Your task to perform on an android device: turn off sleep mode Image 0: 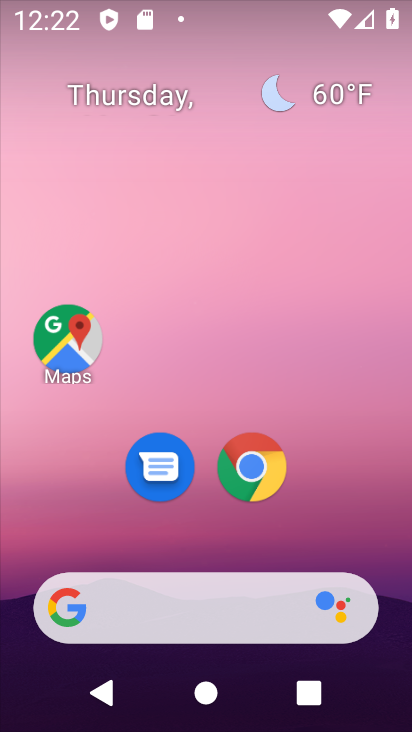
Step 0: drag from (224, 531) to (226, 25)
Your task to perform on an android device: turn off sleep mode Image 1: 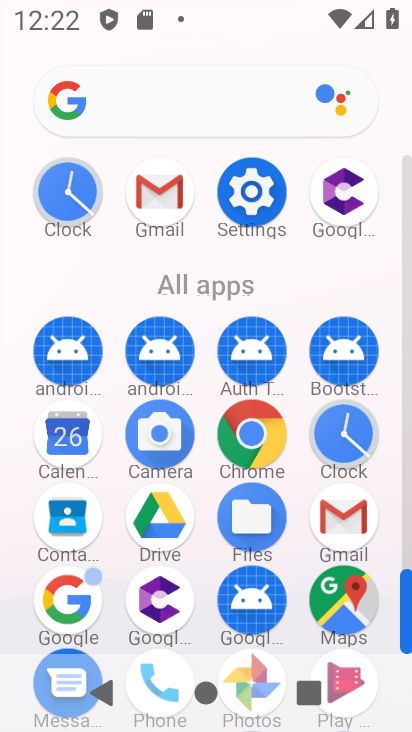
Step 1: click (270, 216)
Your task to perform on an android device: turn off sleep mode Image 2: 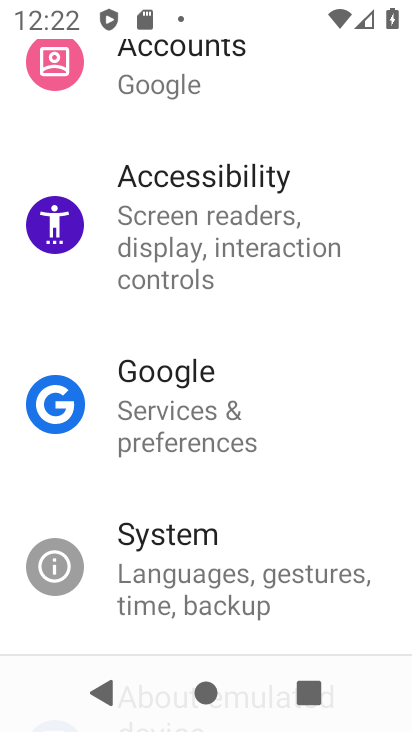
Step 2: drag from (198, 201) to (201, 570)
Your task to perform on an android device: turn off sleep mode Image 3: 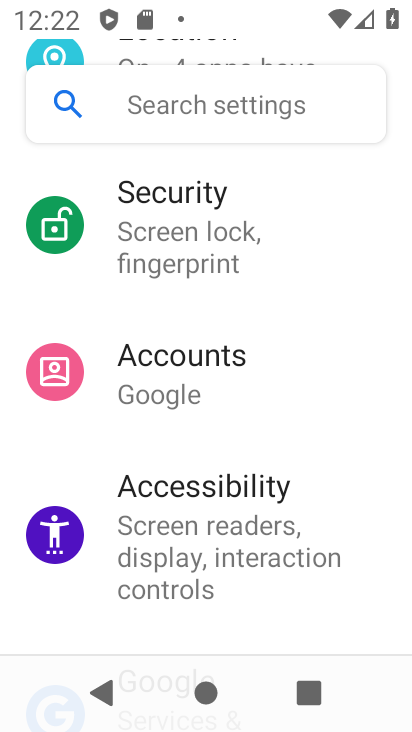
Step 3: click (204, 114)
Your task to perform on an android device: turn off sleep mode Image 4: 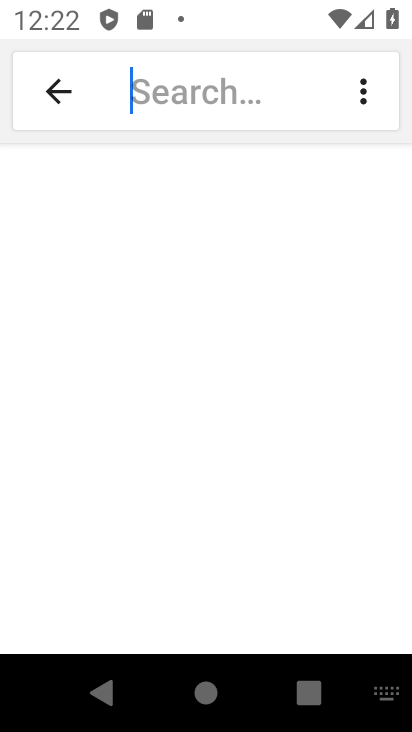
Step 4: type "sleep mode"
Your task to perform on an android device: turn off sleep mode Image 5: 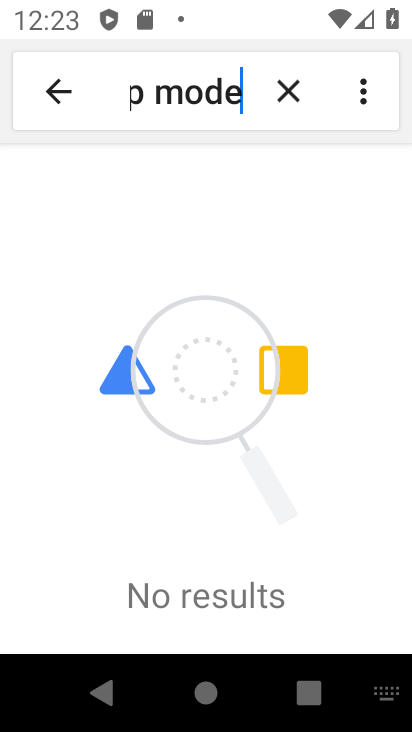
Step 5: task complete